Your task to perform on an android device: Open the calendar app, open the side menu, and click the "Day" option Image 0: 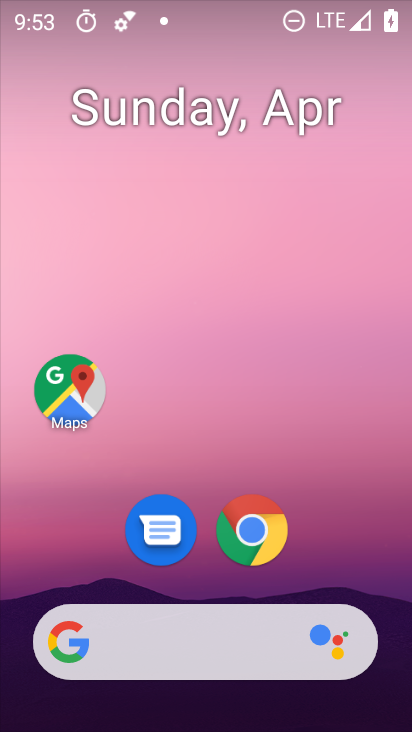
Step 0: drag from (390, 574) to (409, 26)
Your task to perform on an android device: Open the calendar app, open the side menu, and click the "Day" option Image 1: 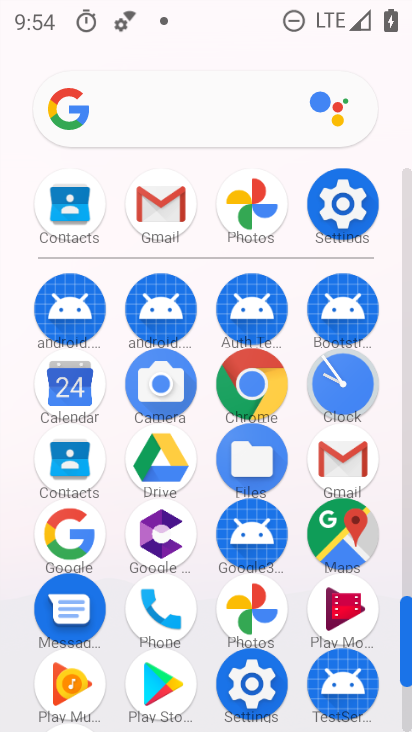
Step 1: click (58, 389)
Your task to perform on an android device: Open the calendar app, open the side menu, and click the "Day" option Image 2: 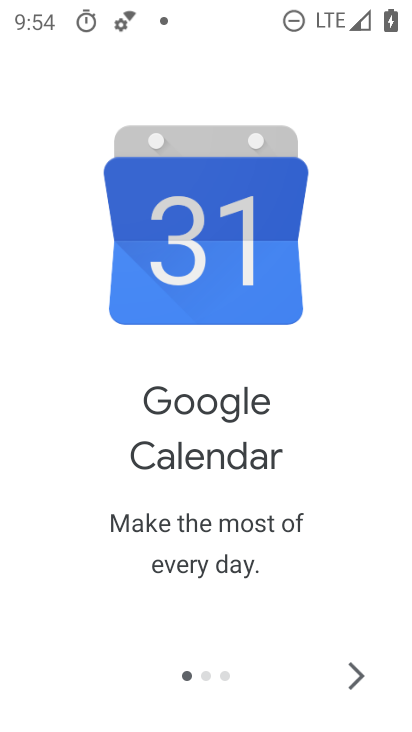
Step 2: click (352, 671)
Your task to perform on an android device: Open the calendar app, open the side menu, and click the "Day" option Image 3: 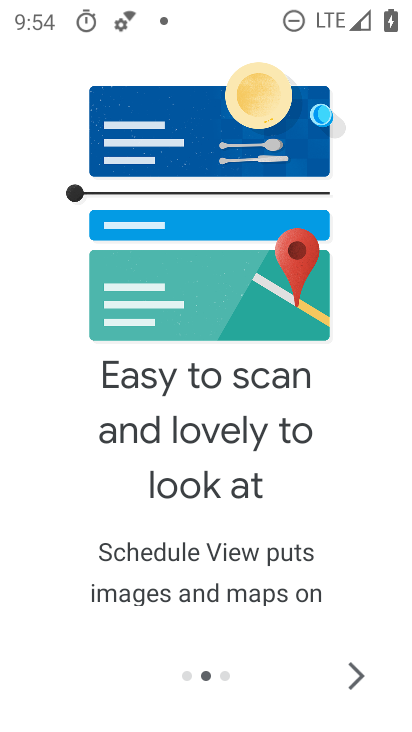
Step 3: click (350, 675)
Your task to perform on an android device: Open the calendar app, open the side menu, and click the "Day" option Image 4: 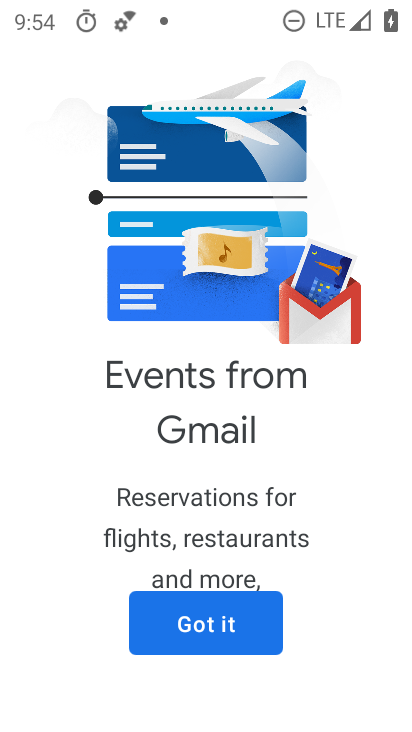
Step 4: click (235, 626)
Your task to perform on an android device: Open the calendar app, open the side menu, and click the "Day" option Image 5: 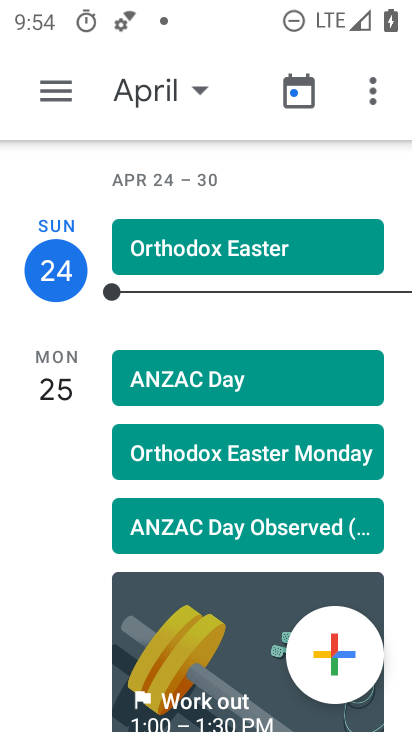
Step 5: click (67, 100)
Your task to perform on an android device: Open the calendar app, open the side menu, and click the "Day" option Image 6: 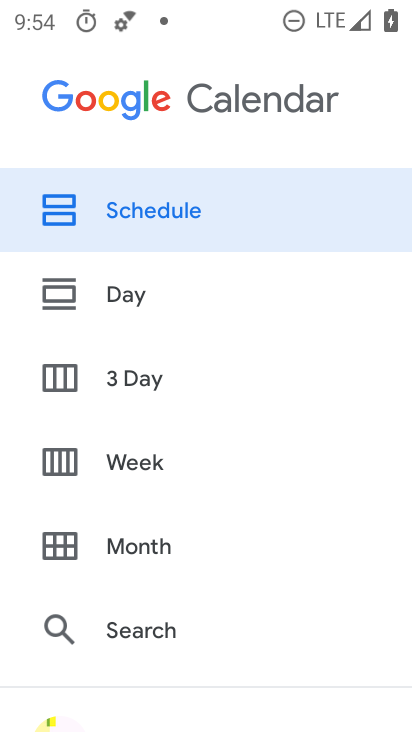
Step 6: click (69, 296)
Your task to perform on an android device: Open the calendar app, open the side menu, and click the "Day" option Image 7: 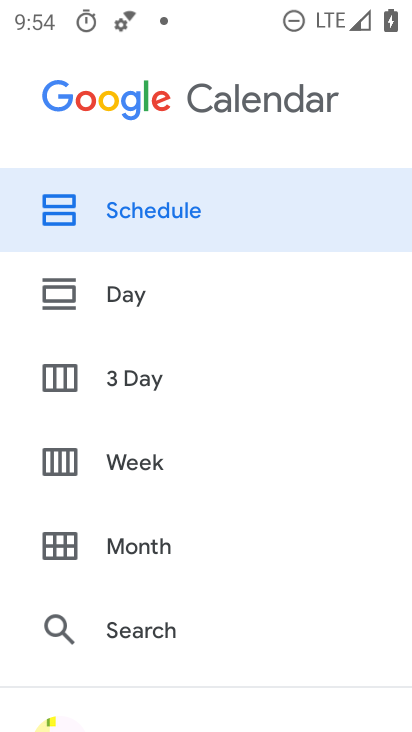
Step 7: click (92, 298)
Your task to perform on an android device: Open the calendar app, open the side menu, and click the "Day" option Image 8: 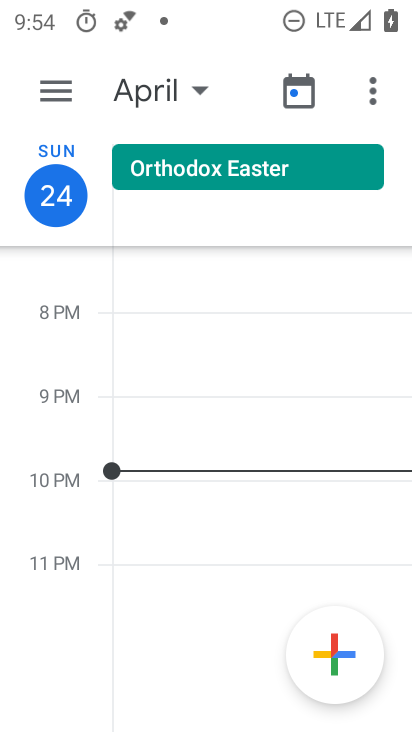
Step 8: task complete